Your task to perform on an android device: Open Chrome and go to the settings page Image 0: 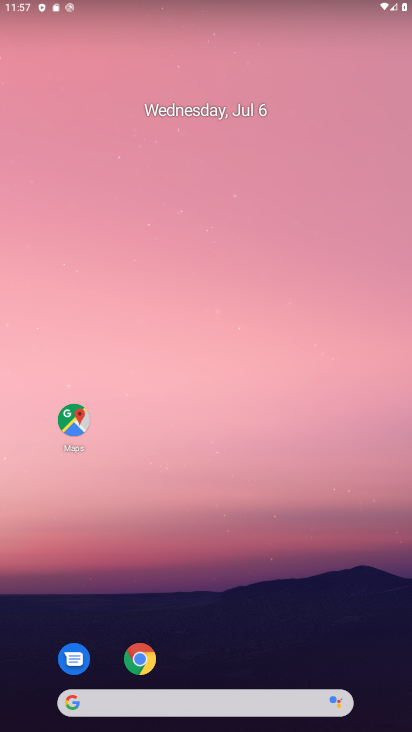
Step 0: drag from (288, 641) to (192, 192)
Your task to perform on an android device: Open Chrome and go to the settings page Image 1: 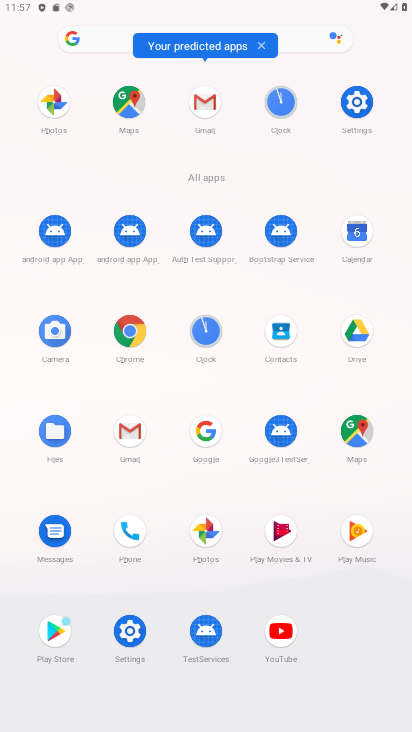
Step 1: click (135, 331)
Your task to perform on an android device: Open Chrome and go to the settings page Image 2: 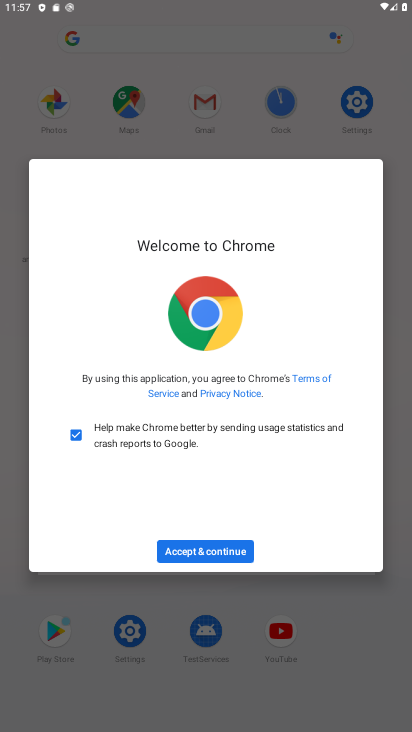
Step 2: click (232, 552)
Your task to perform on an android device: Open Chrome and go to the settings page Image 3: 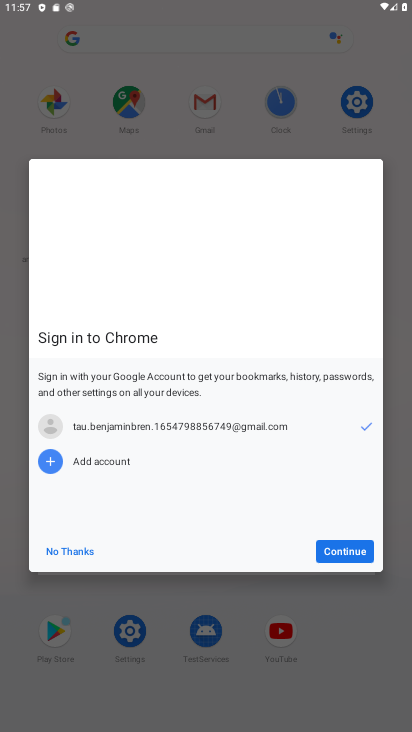
Step 3: click (364, 552)
Your task to perform on an android device: Open Chrome and go to the settings page Image 4: 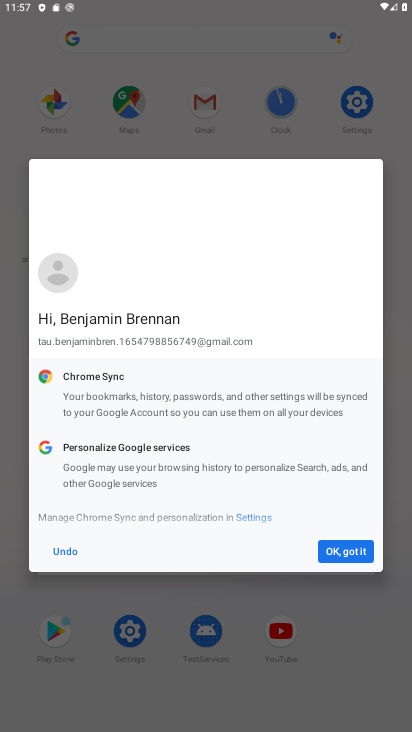
Step 4: click (344, 549)
Your task to perform on an android device: Open Chrome and go to the settings page Image 5: 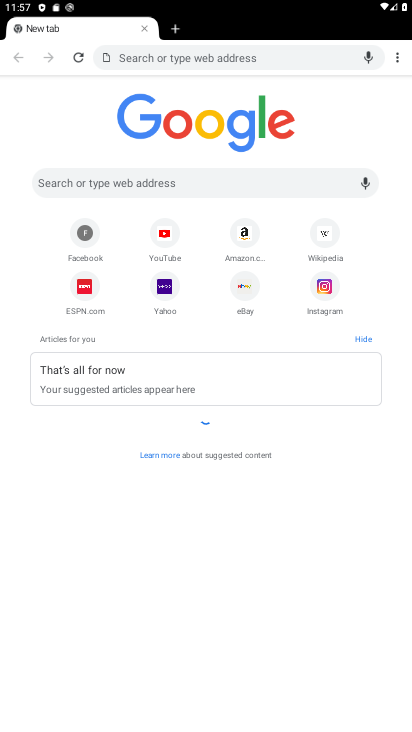
Step 5: click (399, 58)
Your task to perform on an android device: Open Chrome and go to the settings page Image 6: 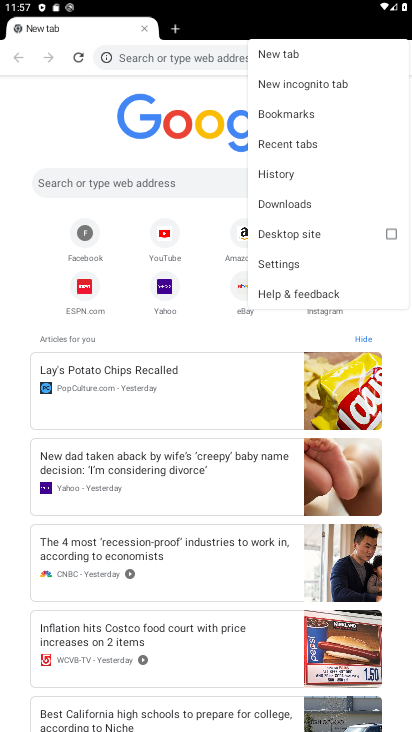
Step 6: click (320, 266)
Your task to perform on an android device: Open Chrome and go to the settings page Image 7: 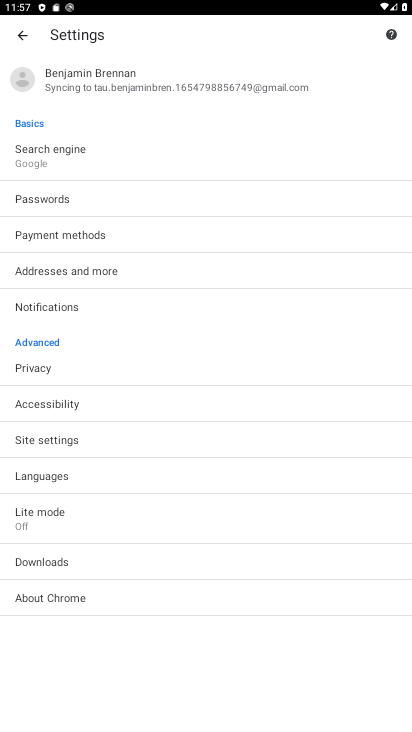
Step 7: task complete